Your task to perform on an android device: Is it going to rain tomorrow? Image 0: 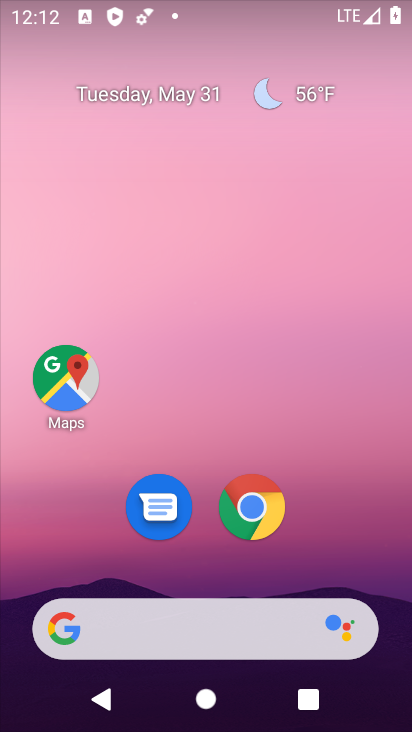
Step 0: drag from (390, 539) to (330, 99)
Your task to perform on an android device: Is it going to rain tomorrow? Image 1: 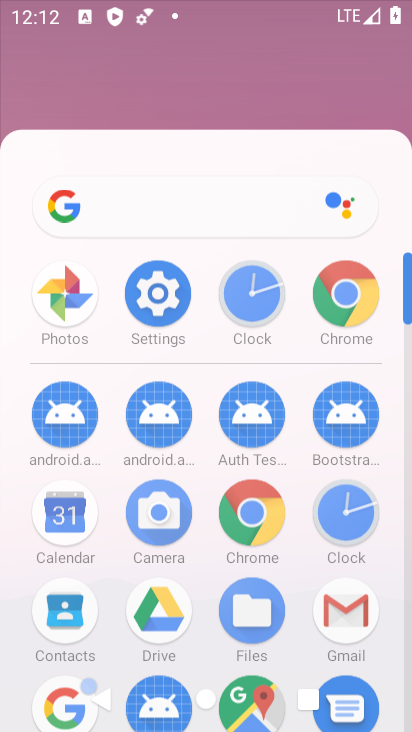
Step 1: click (316, 54)
Your task to perform on an android device: Is it going to rain tomorrow? Image 2: 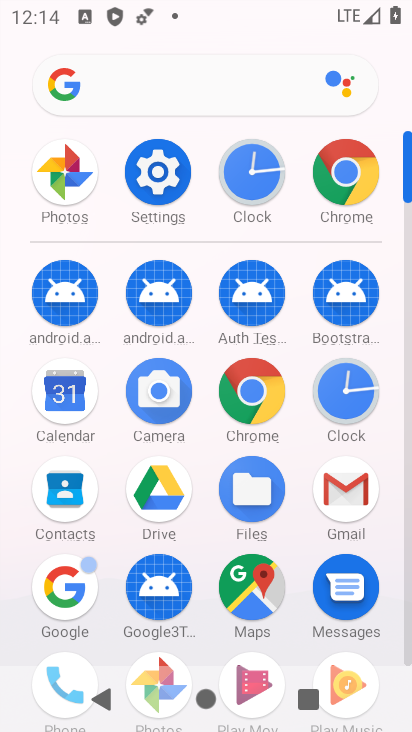
Step 2: click (51, 582)
Your task to perform on an android device: Is it going to rain tomorrow? Image 3: 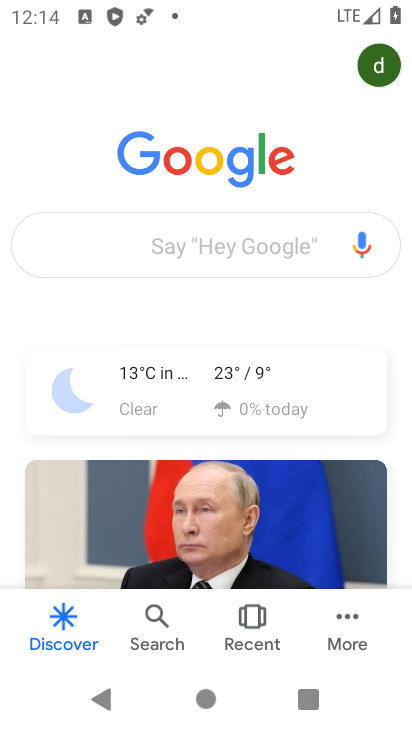
Step 3: click (176, 240)
Your task to perform on an android device: Is it going to rain tomorrow? Image 4: 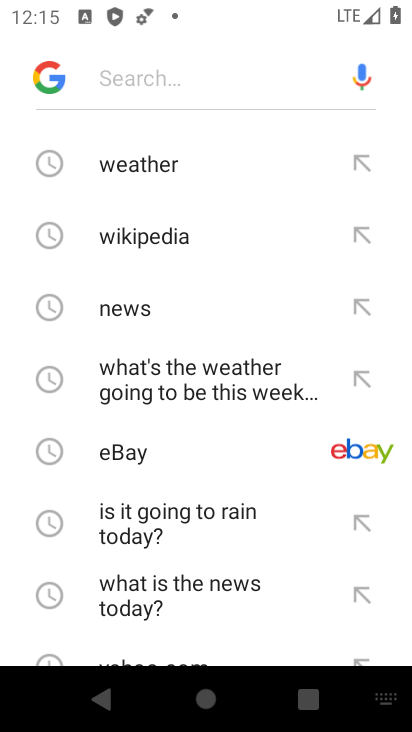
Step 4: drag from (236, 544) to (255, 186)
Your task to perform on an android device: Is it going to rain tomorrow? Image 5: 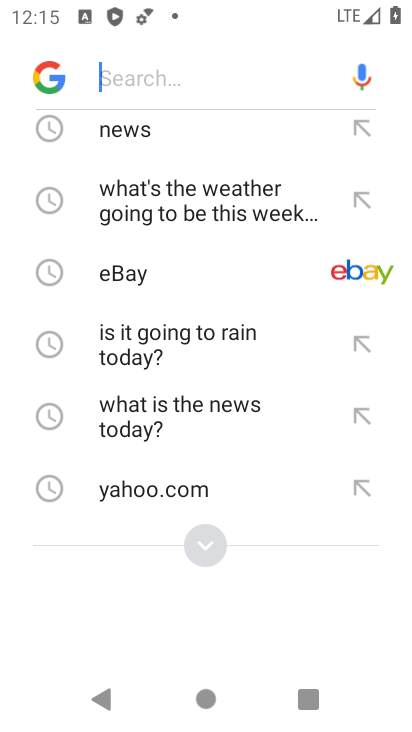
Step 5: click (209, 548)
Your task to perform on an android device: Is it going to rain tomorrow? Image 6: 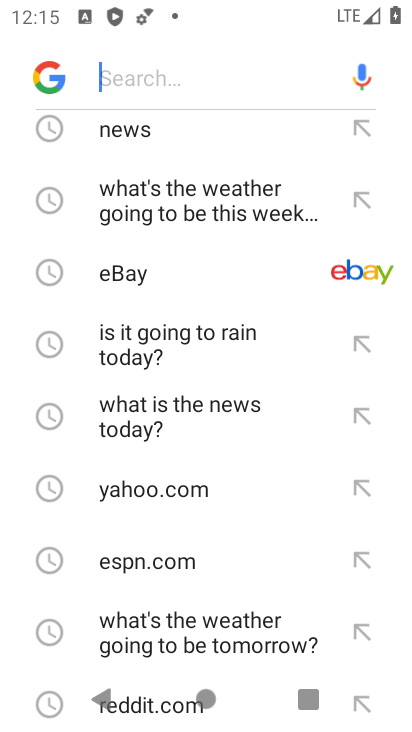
Step 6: drag from (241, 630) to (271, 328)
Your task to perform on an android device: Is it going to rain tomorrow? Image 7: 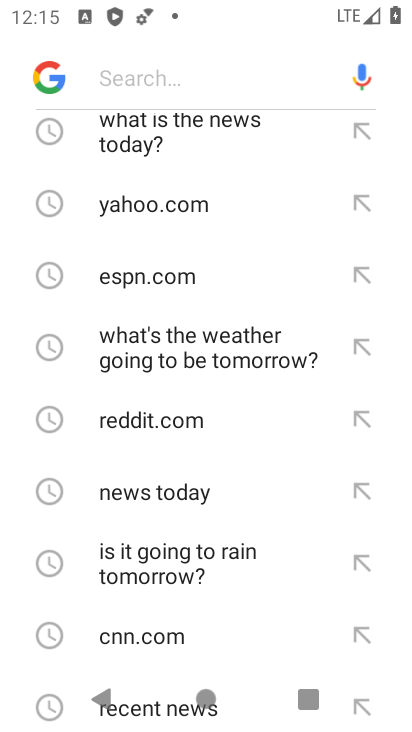
Step 7: click (213, 567)
Your task to perform on an android device: Is it going to rain tomorrow? Image 8: 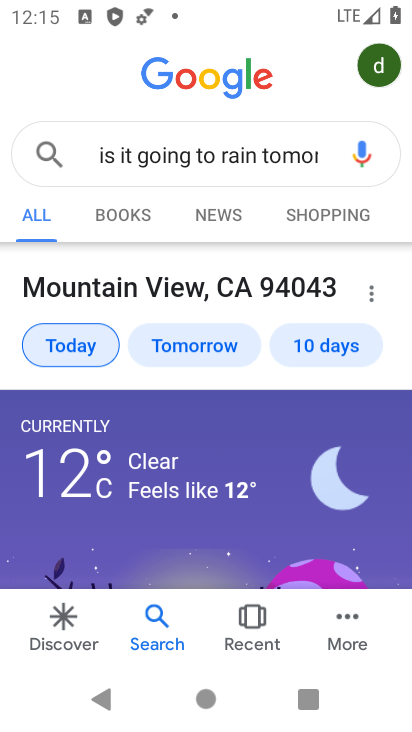
Step 8: task complete